Your task to perform on an android device: change alarm snooze length Image 0: 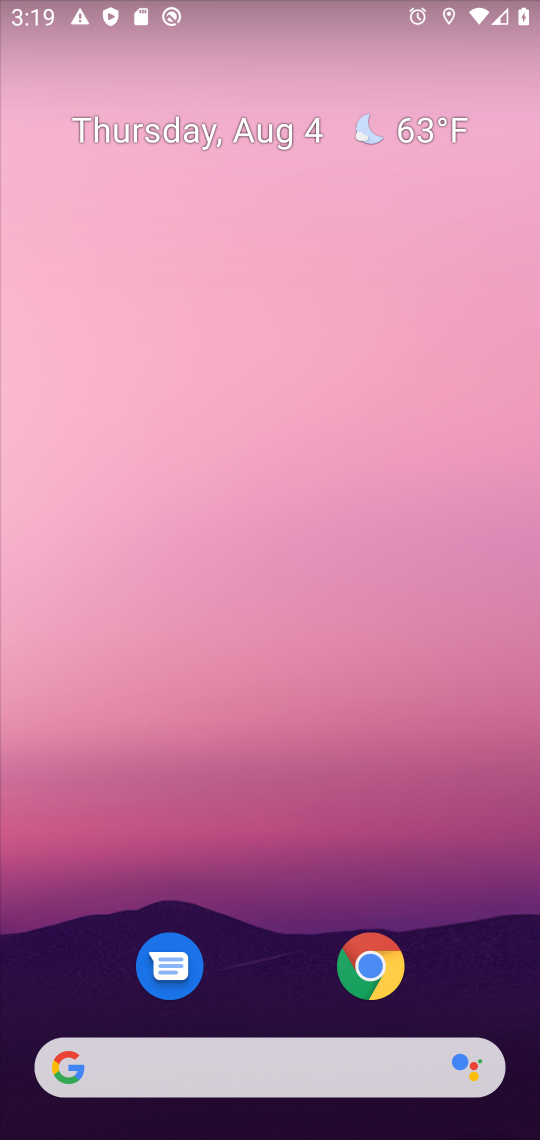
Step 0: press home button
Your task to perform on an android device: change alarm snooze length Image 1: 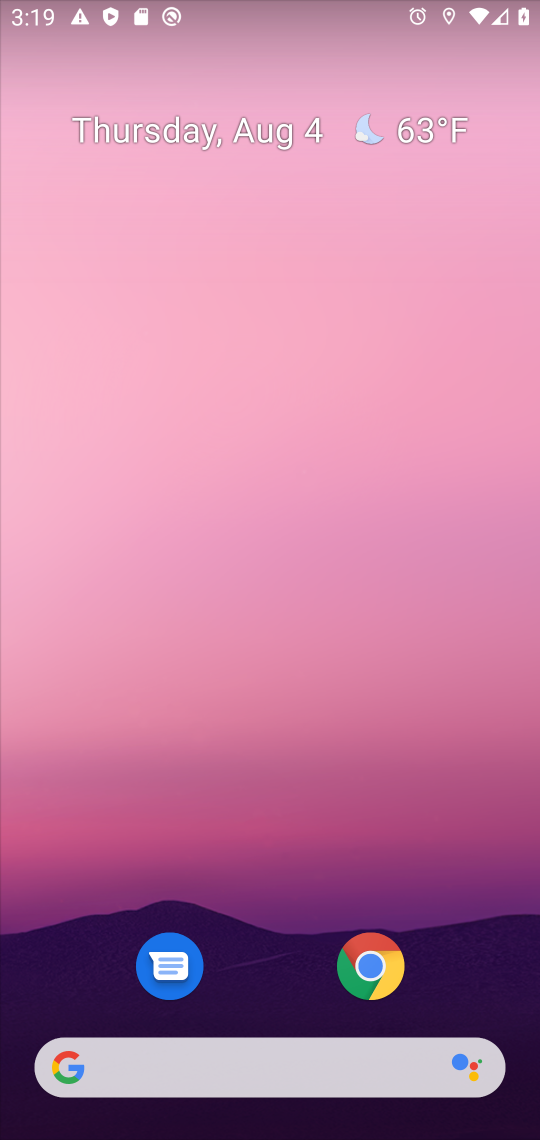
Step 1: drag from (276, 1000) to (268, 7)
Your task to perform on an android device: change alarm snooze length Image 2: 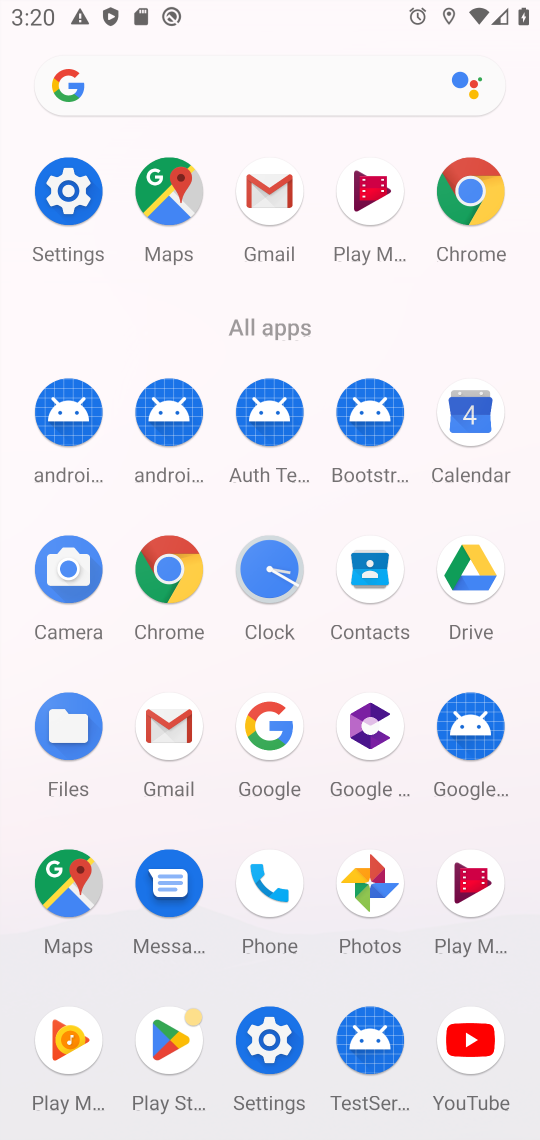
Step 2: click (269, 582)
Your task to perform on an android device: change alarm snooze length Image 3: 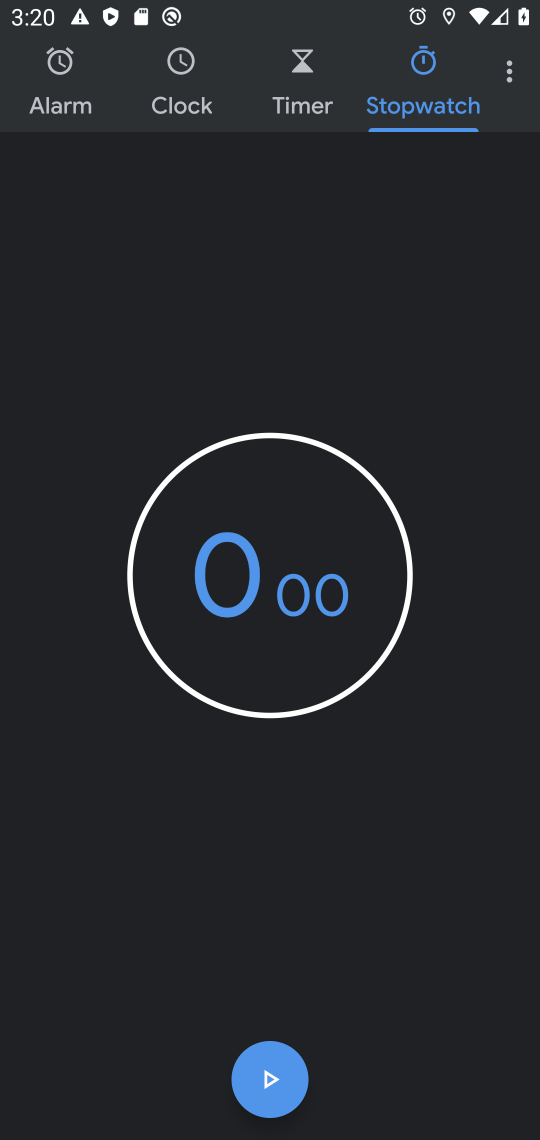
Step 3: click (508, 57)
Your task to perform on an android device: change alarm snooze length Image 4: 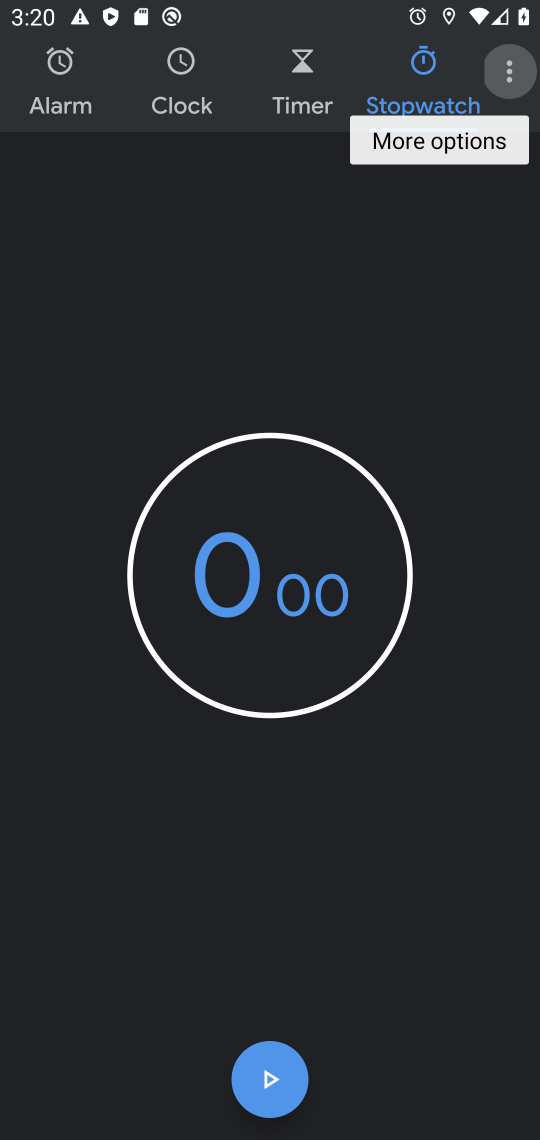
Step 4: click (508, 57)
Your task to perform on an android device: change alarm snooze length Image 5: 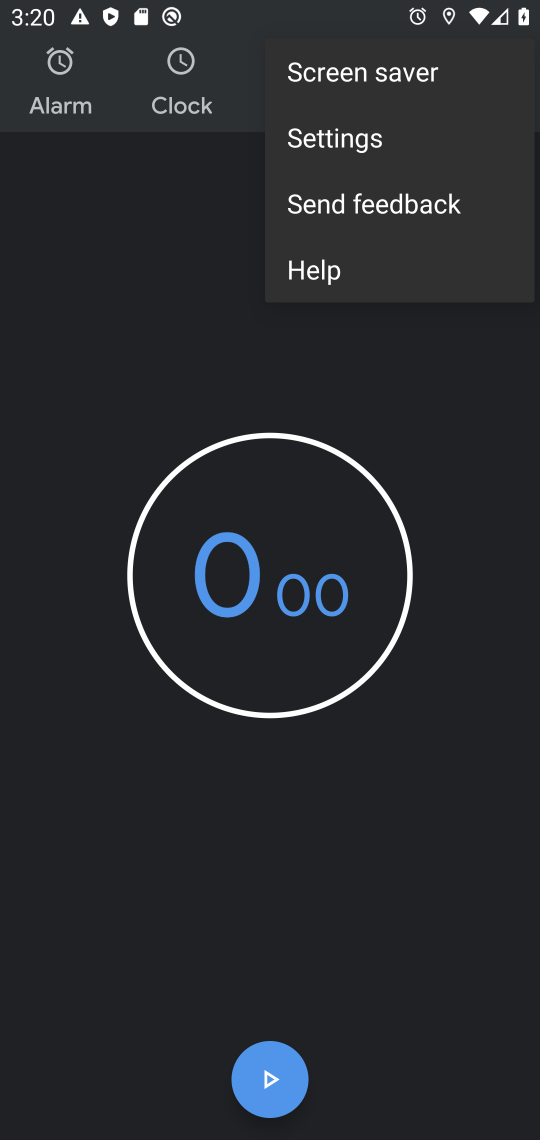
Step 5: click (331, 134)
Your task to perform on an android device: change alarm snooze length Image 6: 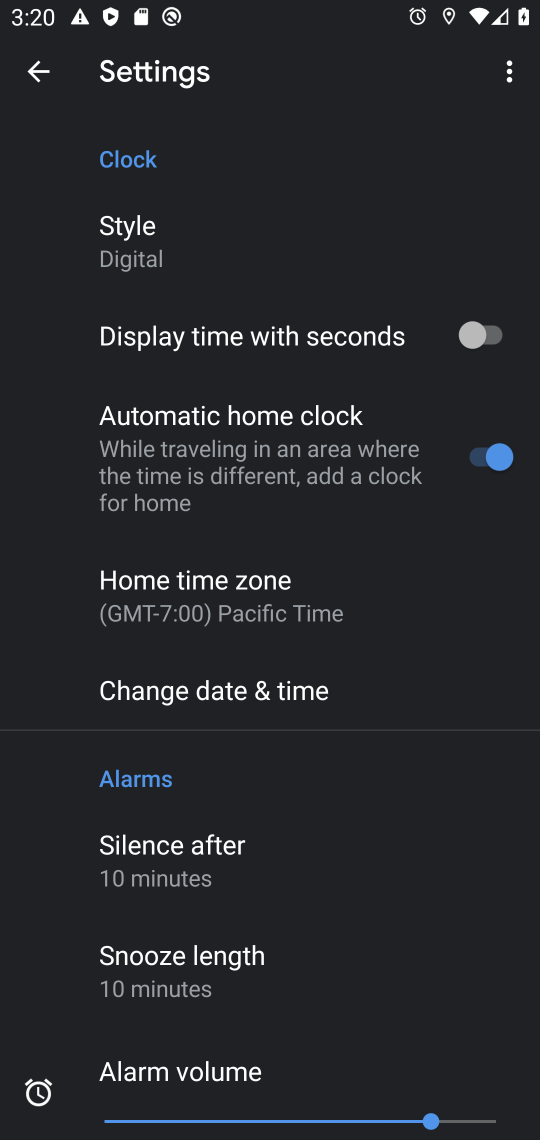
Step 6: click (171, 982)
Your task to perform on an android device: change alarm snooze length Image 7: 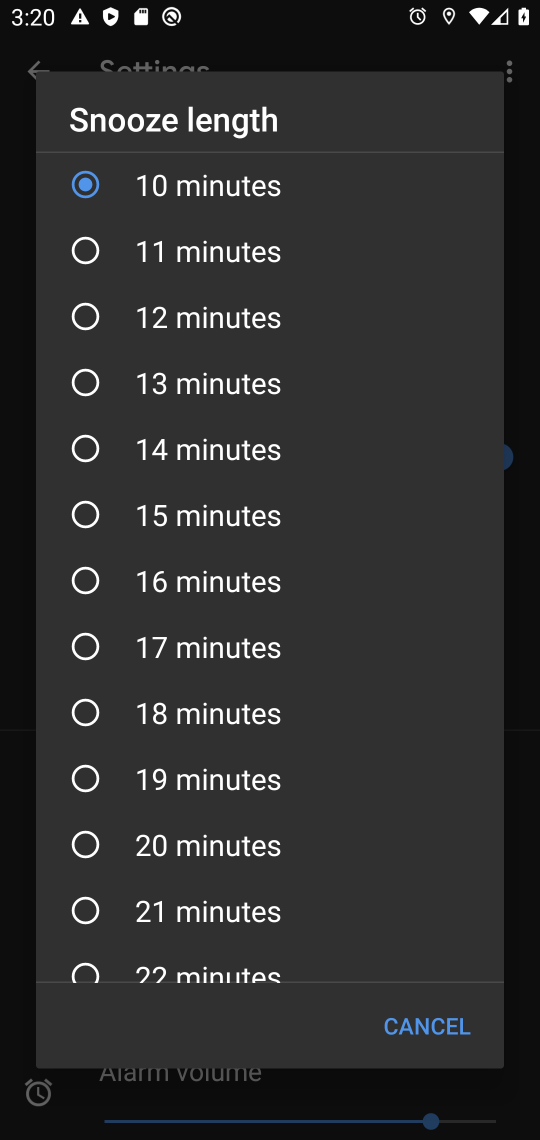
Step 7: click (106, 520)
Your task to perform on an android device: change alarm snooze length Image 8: 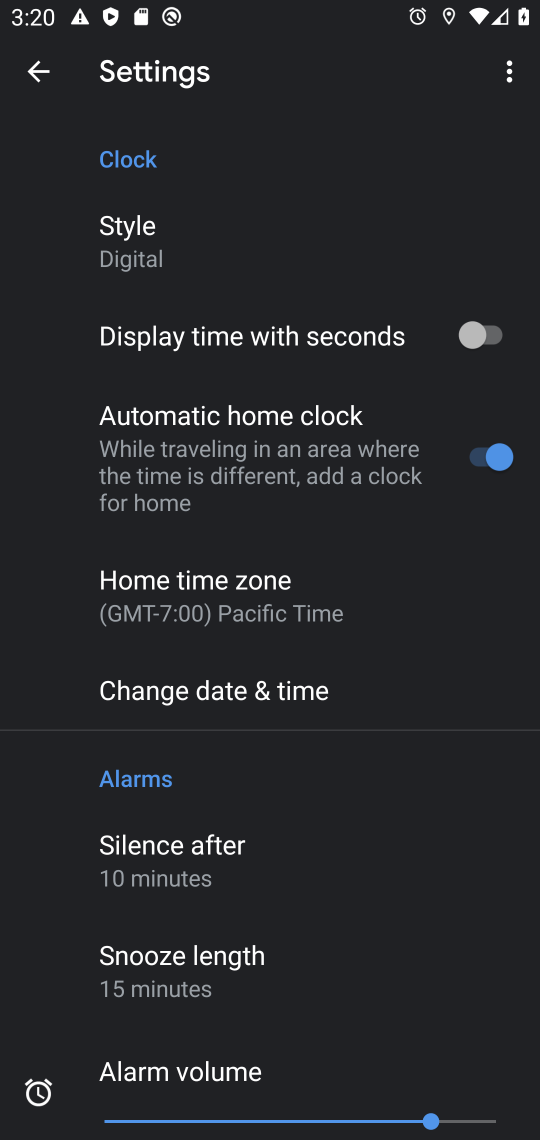
Step 8: task complete